Your task to perform on an android device: delete browsing data in the chrome app Image 0: 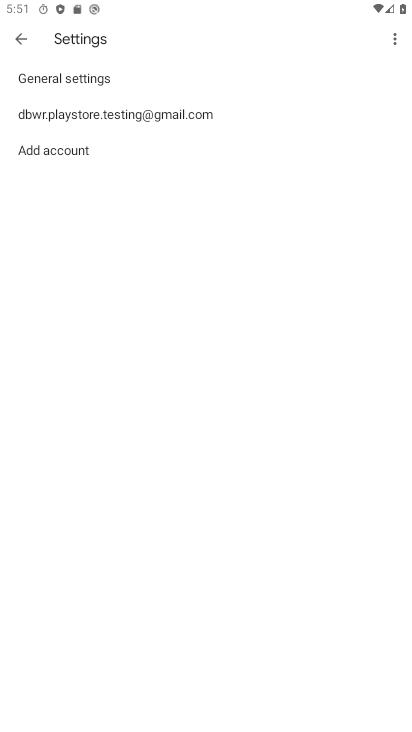
Step 0: click (99, 111)
Your task to perform on an android device: delete browsing data in the chrome app Image 1: 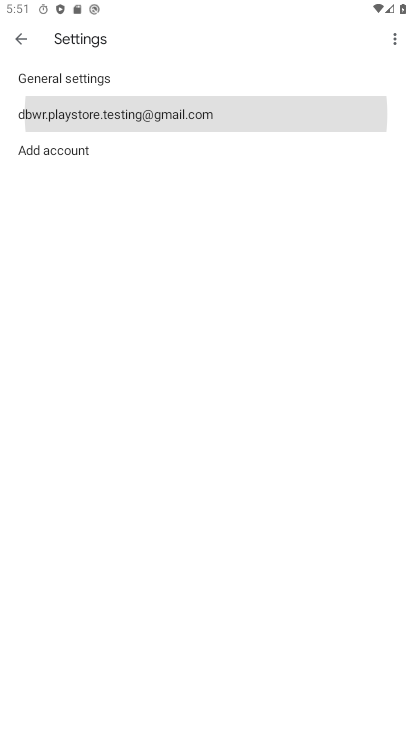
Step 1: click (99, 111)
Your task to perform on an android device: delete browsing data in the chrome app Image 2: 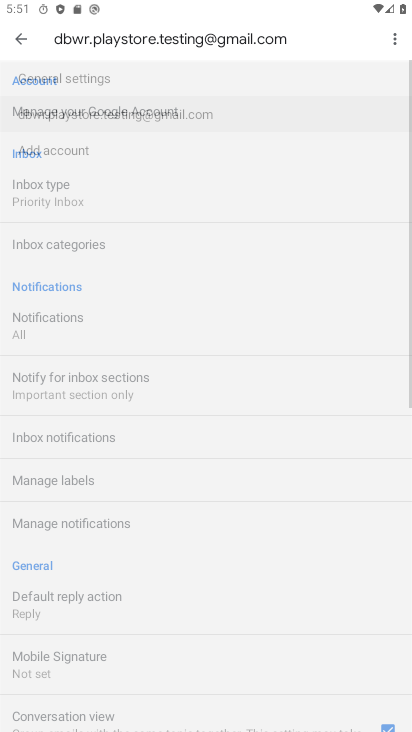
Step 2: click (100, 112)
Your task to perform on an android device: delete browsing data in the chrome app Image 3: 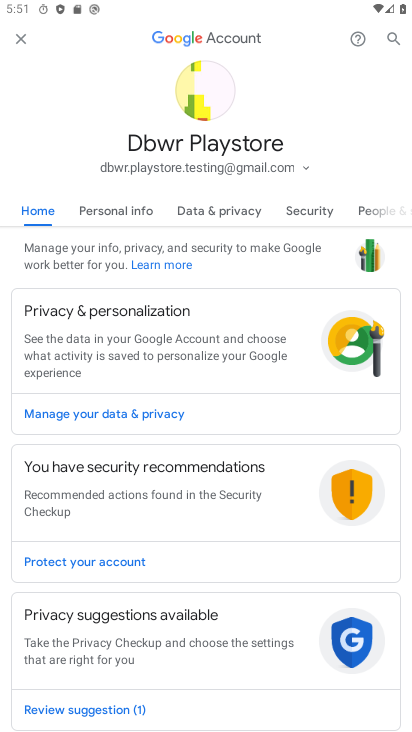
Step 3: click (21, 37)
Your task to perform on an android device: delete browsing data in the chrome app Image 4: 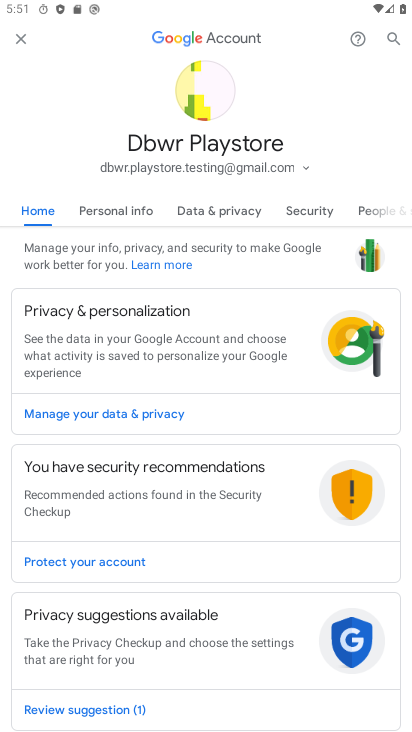
Step 4: press back button
Your task to perform on an android device: delete browsing data in the chrome app Image 5: 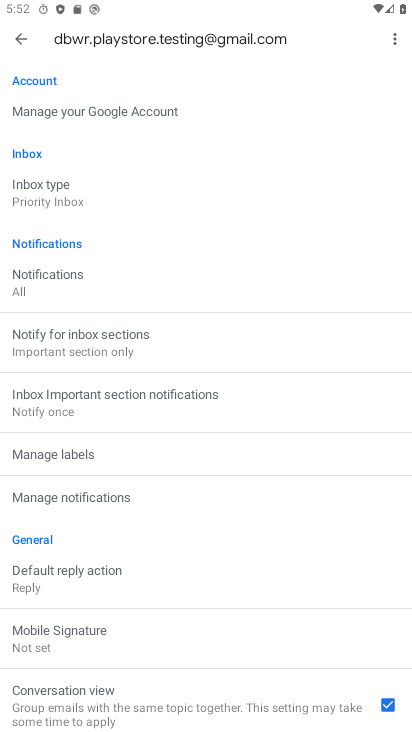
Step 5: click (26, 29)
Your task to perform on an android device: delete browsing data in the chrome app Image 6: 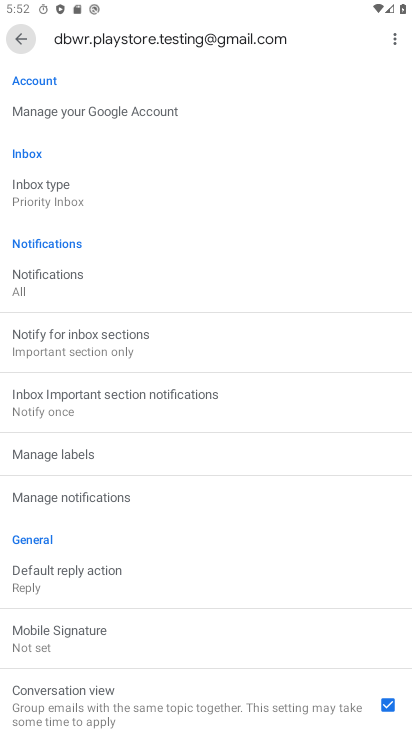
Step 6: press back button
Your task to perform on an android device: delete browsing data in the chrome app Image 7: 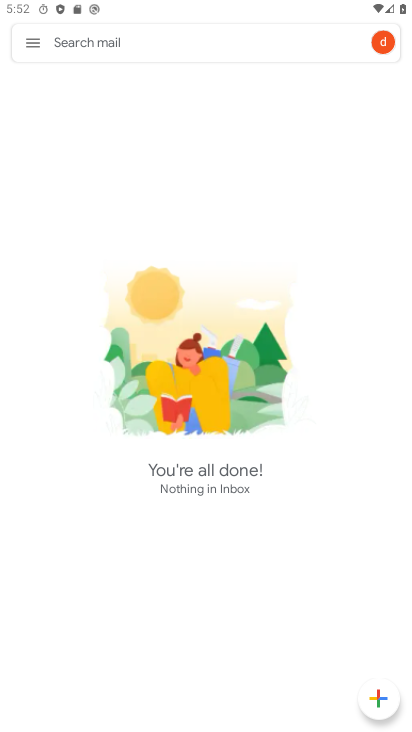
Step 7: press home button
Your task to perform on an android device: delete browsing data in the chrome app Image 8: 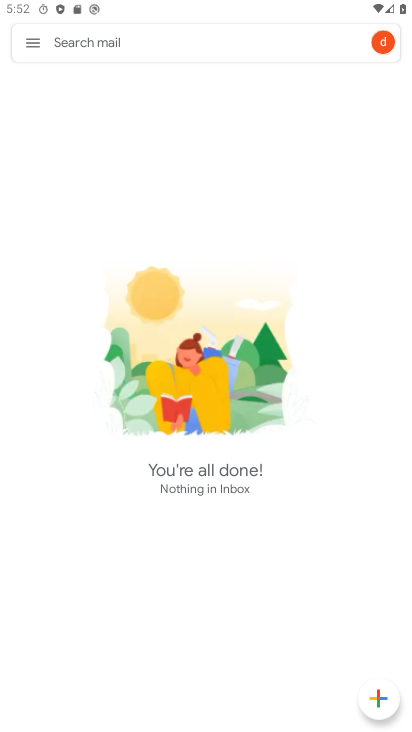
Step 8: press home button
Your task to perform on an android device: delete browsing data in the chrome app Image 9: 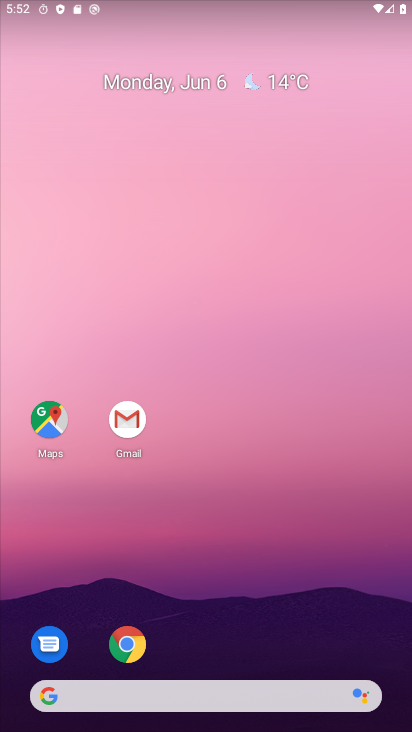
Step 9: click (239, 493)
Your task to perform on an android device: delete browsing data in the chrome app Image 10: 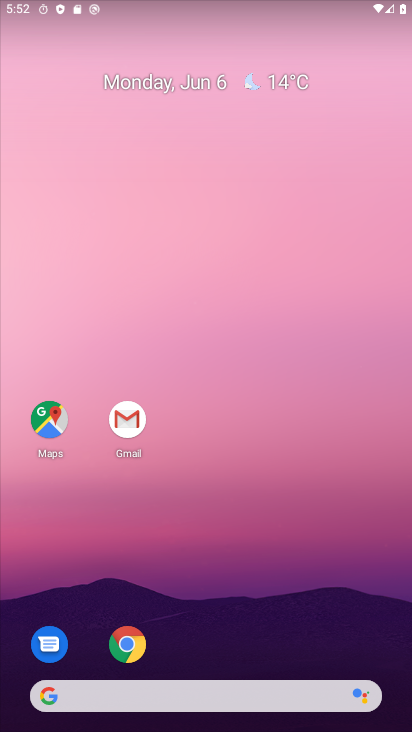
Step 10: drag from (266, 690) to (188, 124)
Your task to perform on an android device: delete browsing data in the chrome app Image 11: 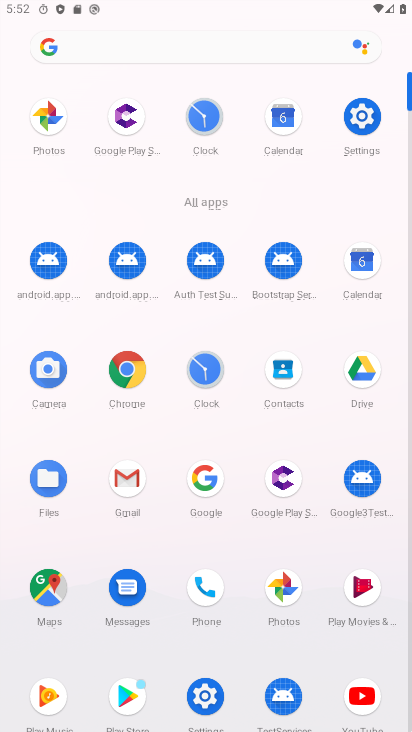
Step 11: click (127, 376)
Your task to perform on an android device: delete browsing data in the chrome app Image 12: 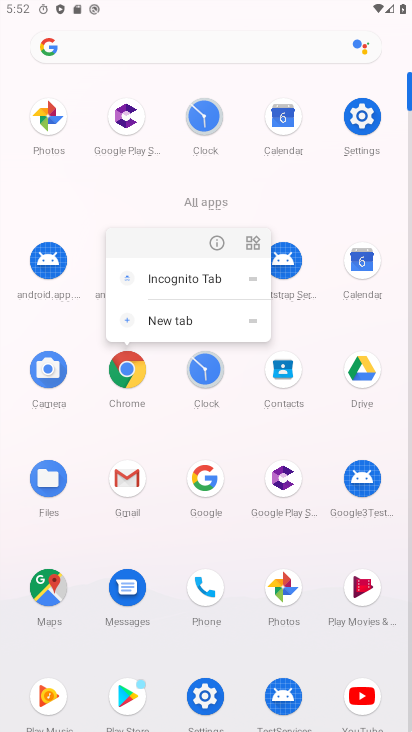
Step 12: click (131, 374)
Your task to perform on an android device: delete browsing data in the chrome app Image 13: 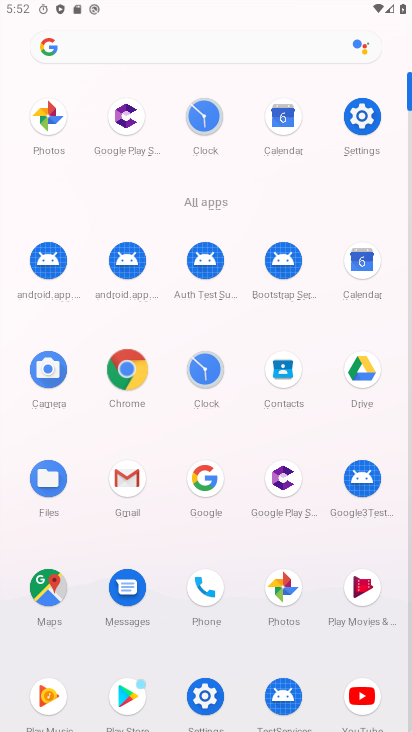
Step 13: click (131, 374)
Your task to perform on an android device: delete browsing data in the chrome app Image 14: 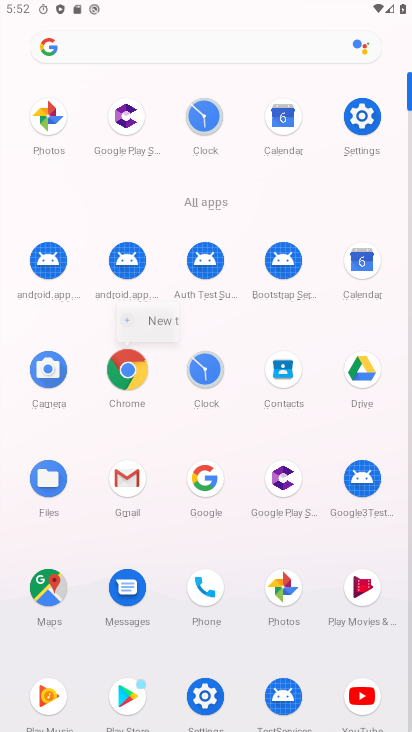
Step 14: click (132, 375)
Your task to perform on an android device: delete browsing data in the chrome app Image 15: 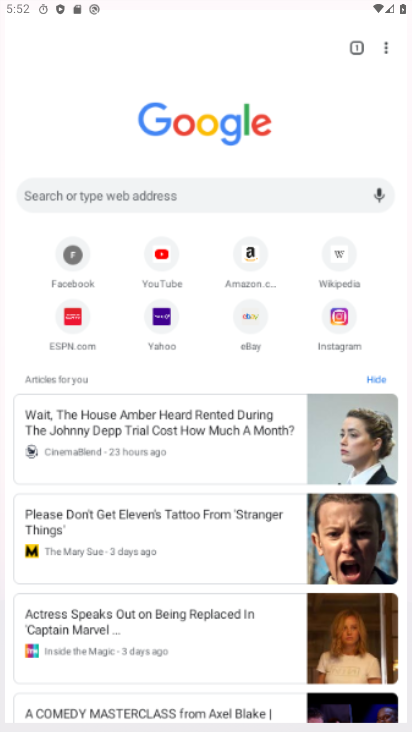
Step 15: click (132, 377)
Your task to perform on an android device: delete browsing data in the chrome app Image 16: 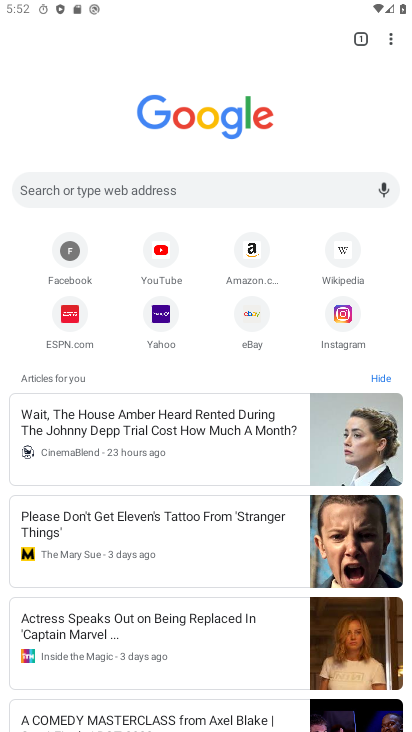
Step 16: click (391, 44)
Your task to perform on an android device: delete browsing data in the chrome app Image 17: 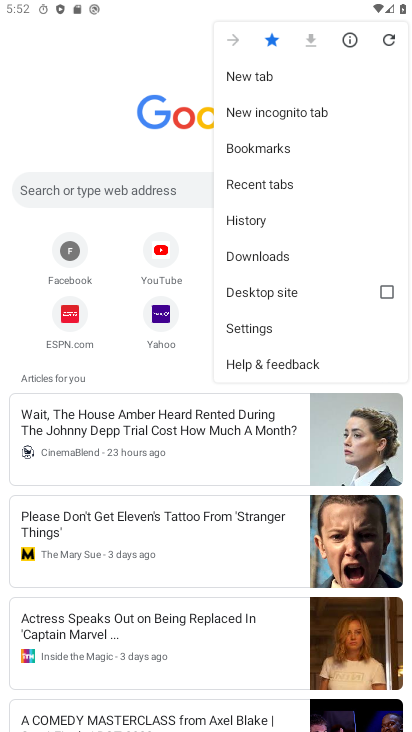
Step 17: click (253, 224)
Your task to perform on an android device: delete browsing data in the chrome app Image 18: 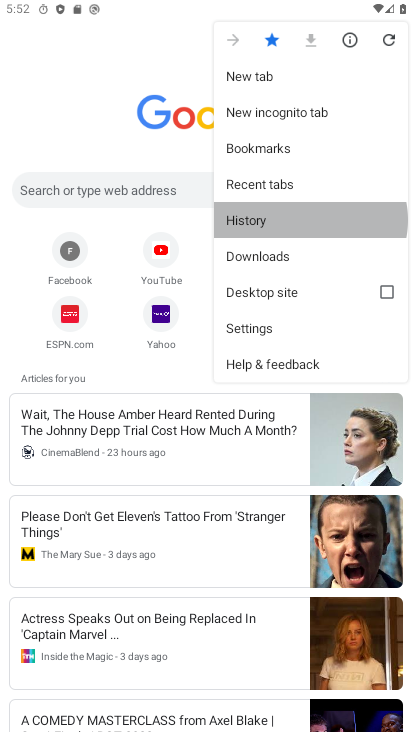
Step 18: click (253, 224)
Your task to perform on an android device: delete browsing data in the chrome app Image 19: 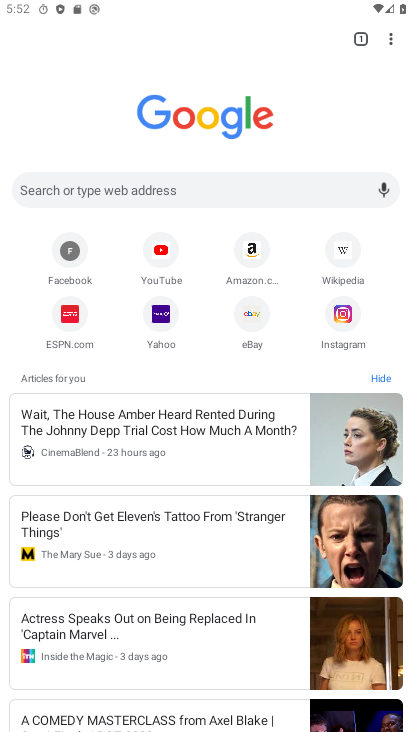
Step 19: click (253, 224)
Your task to perform on an android device: delete browsing data in the chrome app Image 20: 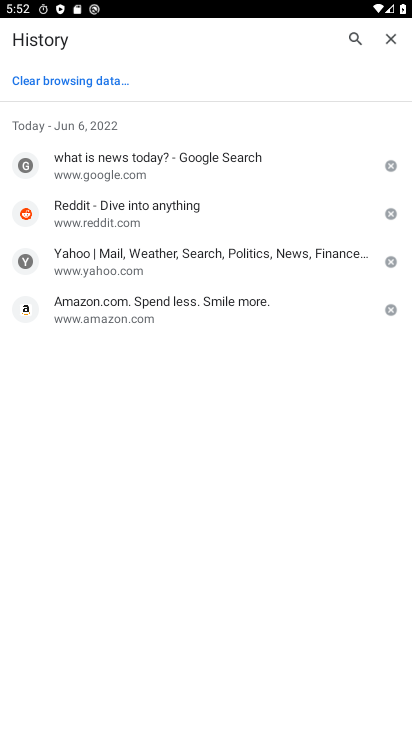
Step 20: click (71, 67)
Your task to perform on an android device: delete browsing data in the chrome app Image 21: 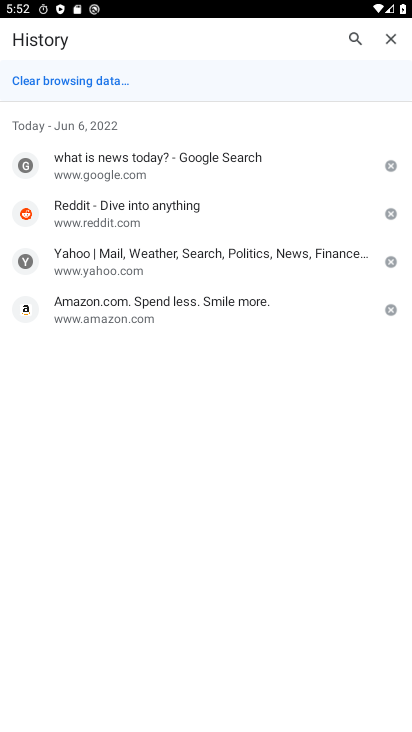
Step 21: click (67, 83)
Your task to perform on an android device: delete browsing data in the chrome app Image 22: 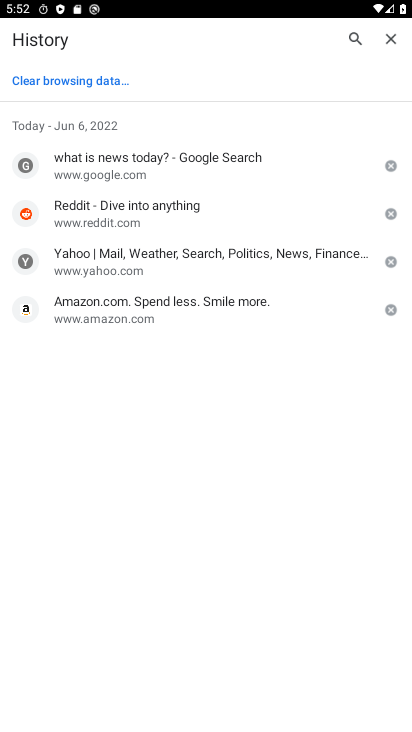
Step 22: click (67, 83)
Your task to perform on an android device: delete browsing data in the chrome app Image 23: 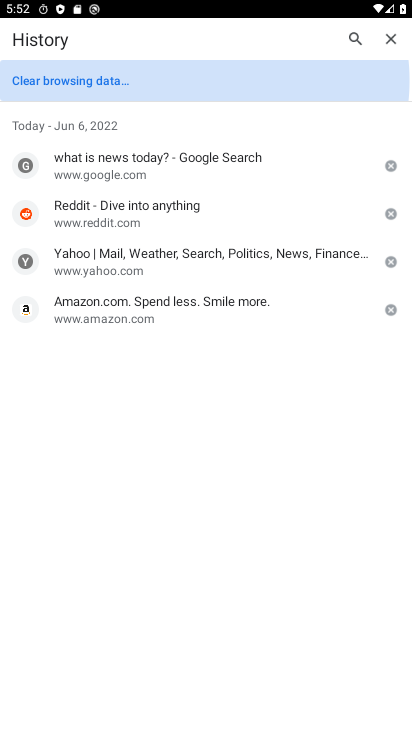
Step 23: click (67, 83)
Your task to perform on an android device: delete browsing data in the chrome app Image 24: 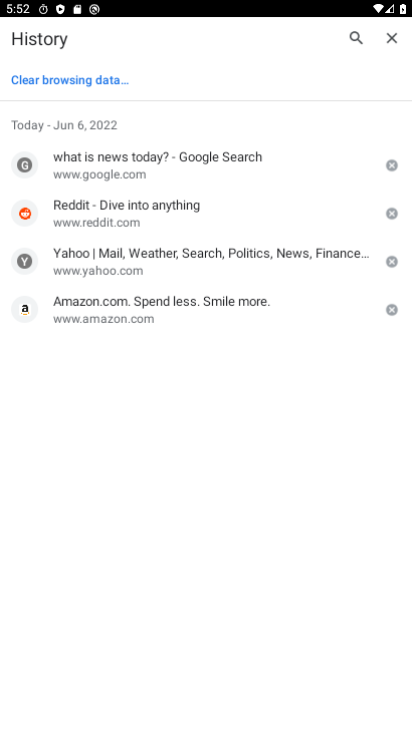
Step 24: click (67, 83)
Your task to perform on an android device: delete browsing data in the chrome app Image 25: 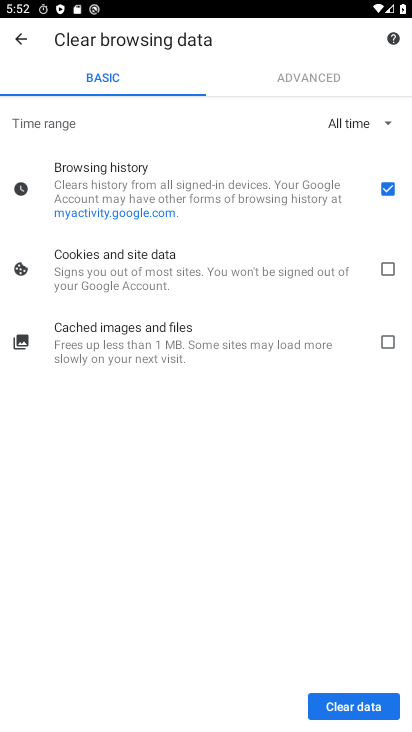
Step 25: click (320, 698)
Your task to perform on an android device: delete browsing data in the chrome app Image 26: 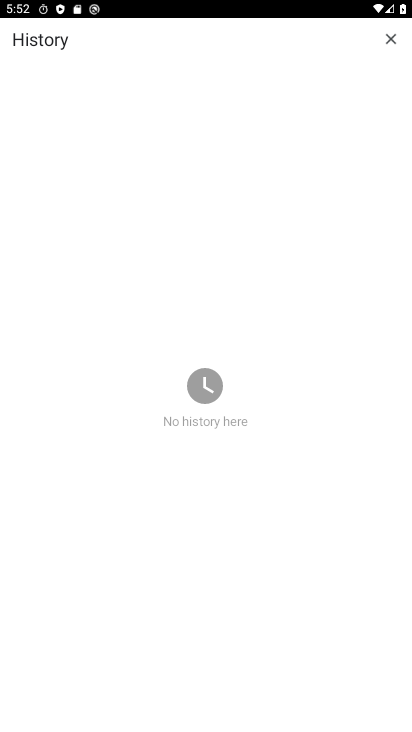
Step 26: task complete